Your task to perform on an android device: Go to Wikipedia Image 0: 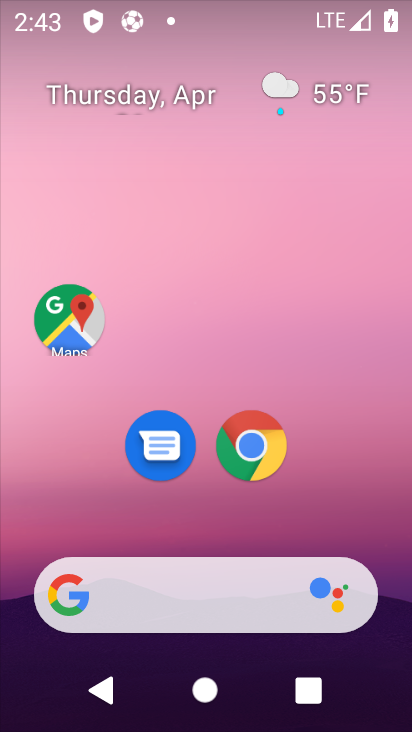
Step 0: drag from (312, 501) to (383, 2)
Your task to perform on an android device: Go to Wikipedia Image 1: 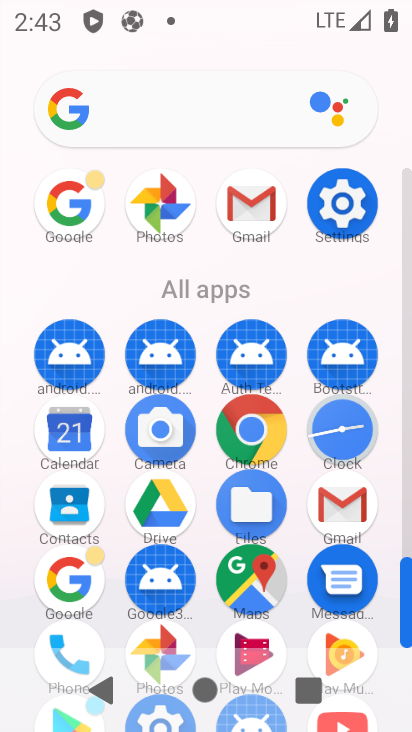
Step 1: click (65, 212)
Your task to perform on an android device: Go to Wikipedia Image 2: 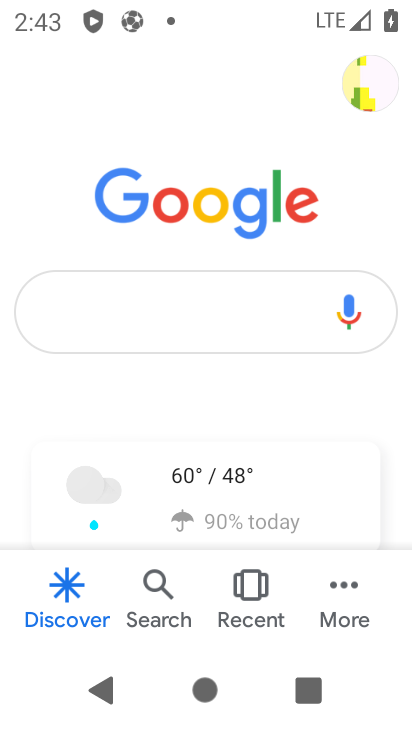
Step 2: click (113, 309)
Your task to perform on an android device: Go to Wikipedia Image 3: 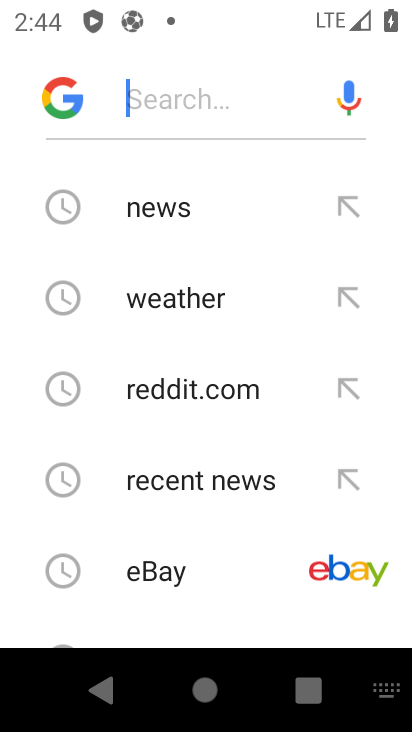
Step 3: type "Wikipedia"
Your task to perform on an android device: Go to Wikipedia Image 4: 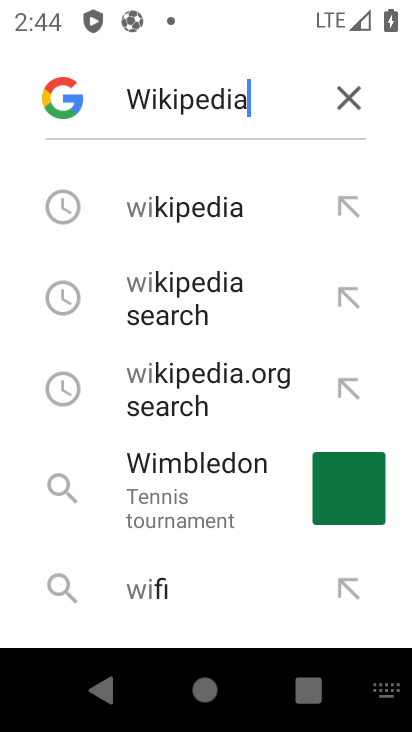
Step 4: type ""
Your task to perform on an android device: Go to Wikipedia Image 5: 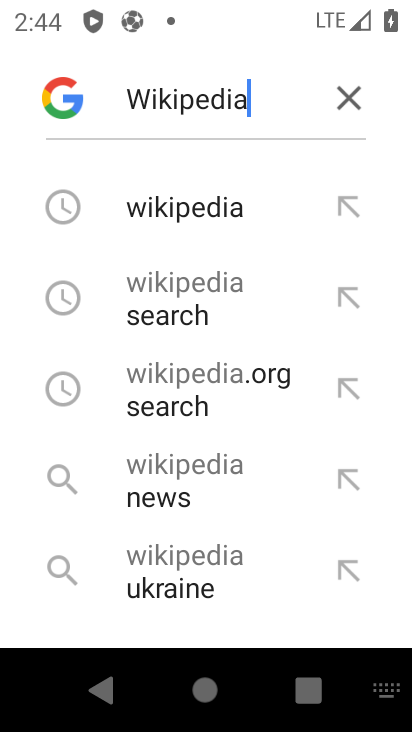
Step 5: click (223, 216)
Your task to perform on an android device: Go to Wikipedia Image 6: 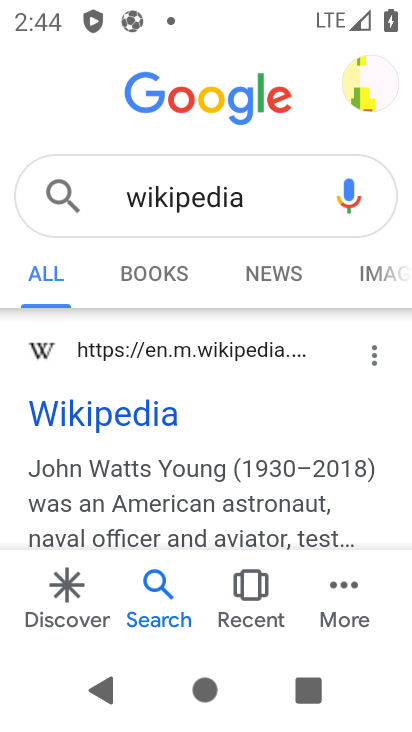
Step 6: click (167, 408)
Your task to perform on an android device: Go to Wikipedia Image 7: 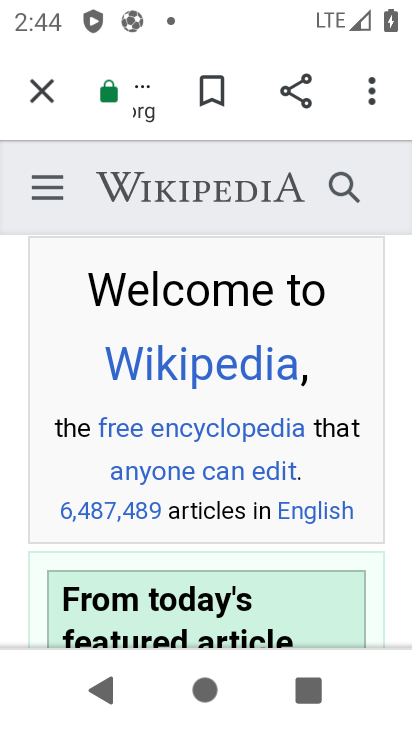
Step 7: task complete